Your task to perform on an android device: Open maps Image 0: 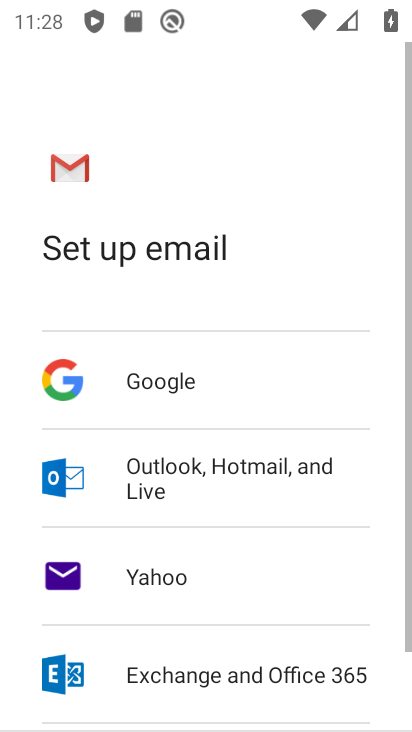
Step 0: press home button
Your task to perform on an android device: Open maps Image 1: 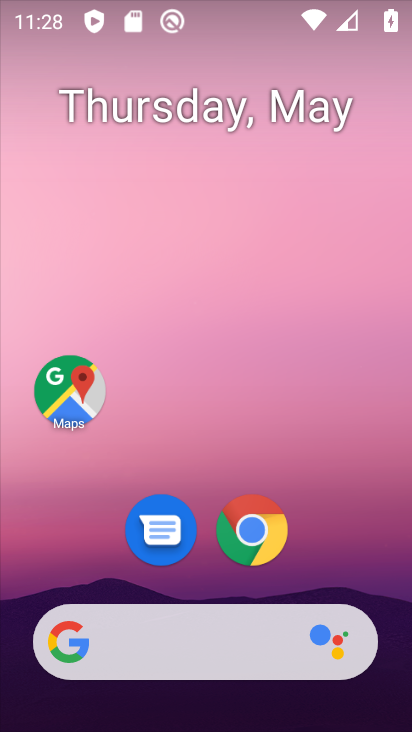
Step 1: drag from (214, 573) to (361, 48)
Your task to perform on an android device: Open maps Image 2: 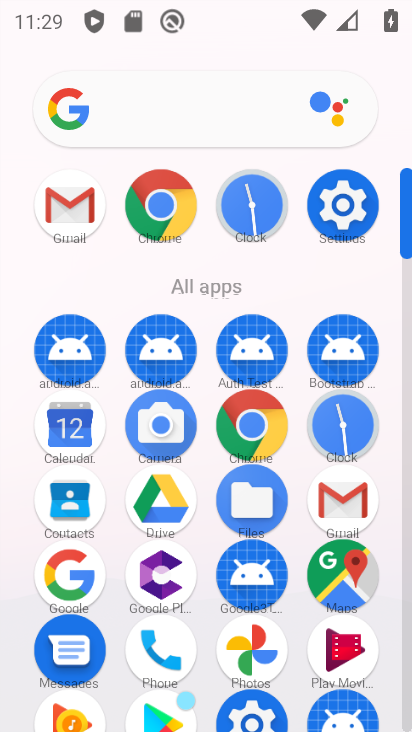
Step 2: click (340, 575)
Your task to perform on an android device: Open maps Image 3: 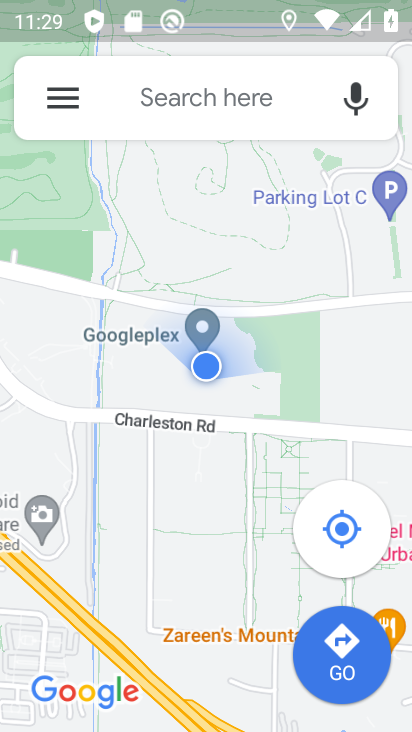
Step 3: task complete